Your task to perform on an android device: change keyboard looks Image 0: 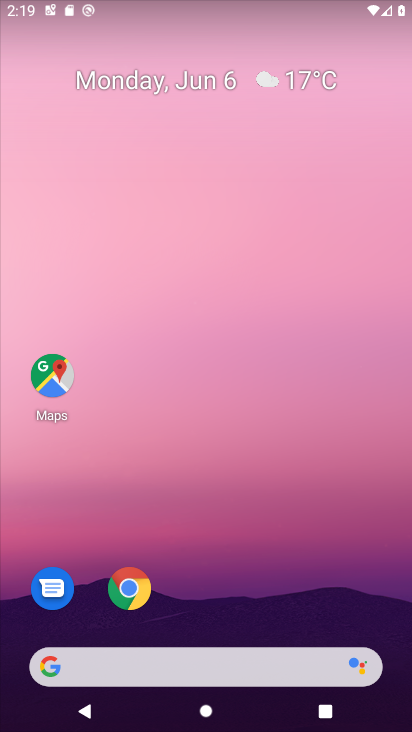
Step 0: drag from (134, 719) to (306, 94)
Your task to perform on an android device: change keyboard looks Image 1: 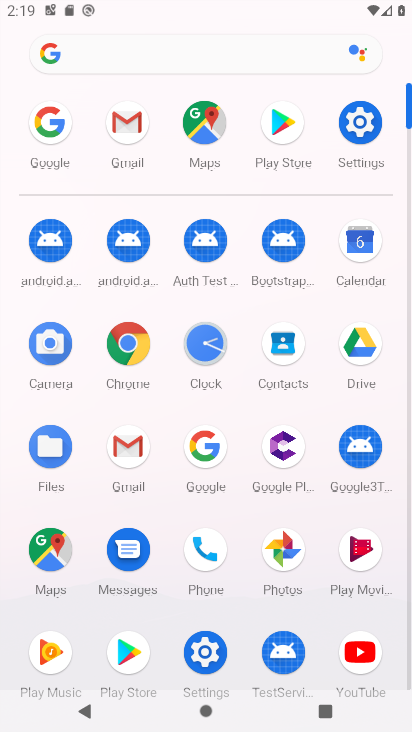
Step 1: click (359, 122)
Your task to perform on an android device: change keyboard looks Image 2: 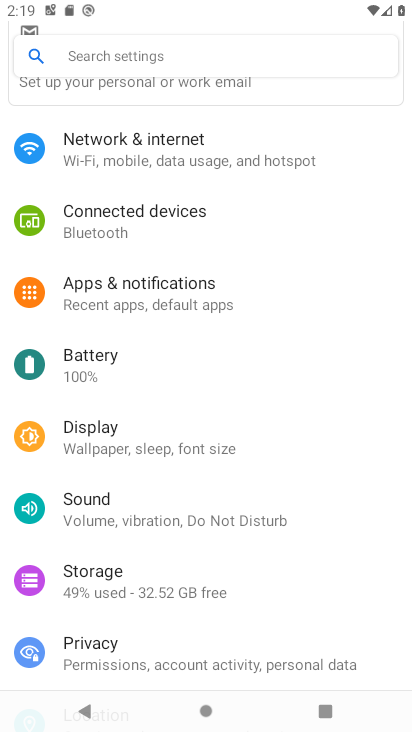
Step 2: drag from (243, 600) to (344, 32)
Your task to perform on an android device: change keyboard looks Image 3: 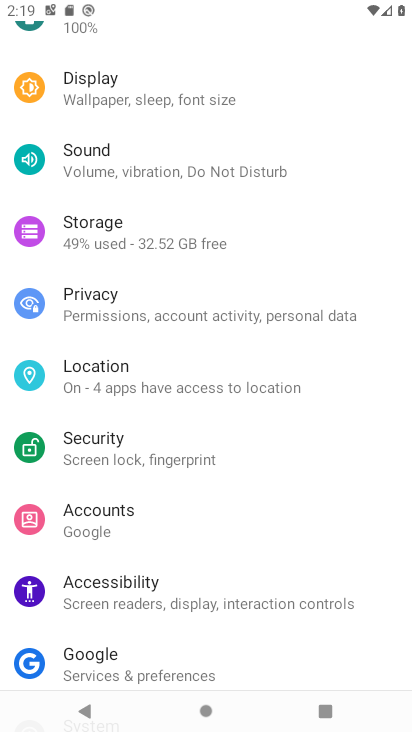
Step 3: drag from (268, 589) to (303, 173)
Your task to perform on an android device: change keyboard looks Image 4: 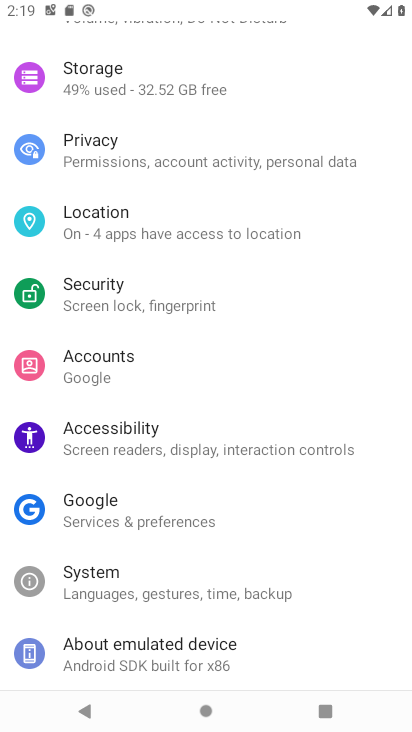
Step 4: click (190, 602)
Your task to perform on an android device: change keyboard looks Image 5: 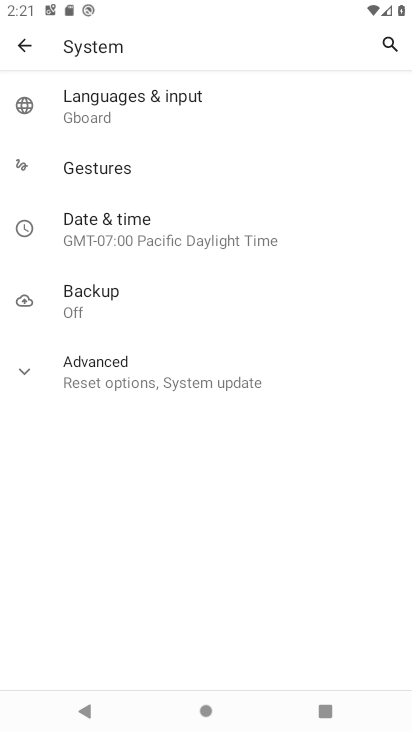
Step 5: click (164, 94)
Your task to perform on an android device: change keyboard looks Image 6: 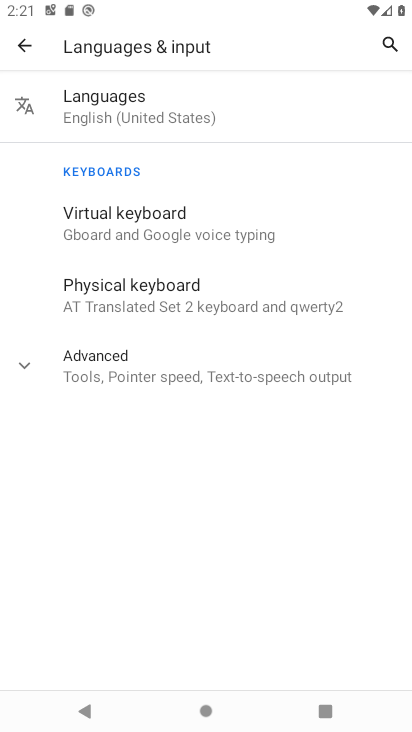
Step 6: click (179, 212)
Your task to perform on an android device: change keyboard looks Image 7: 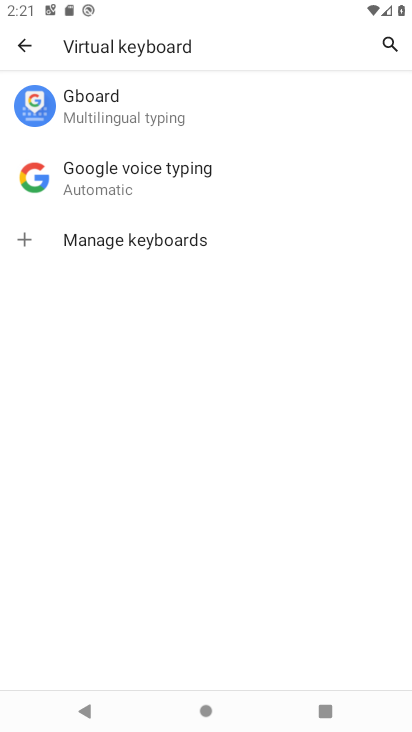
Step 7: click (160, 126)
Your task to perform on an android device: change keyboard looks Image 8: 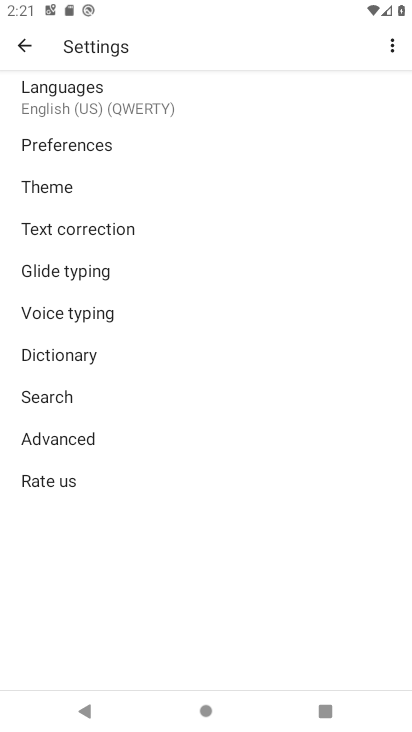
Step 8: click (65, 188)
Your task to perform on an android device: change keyboard looks Image 9: 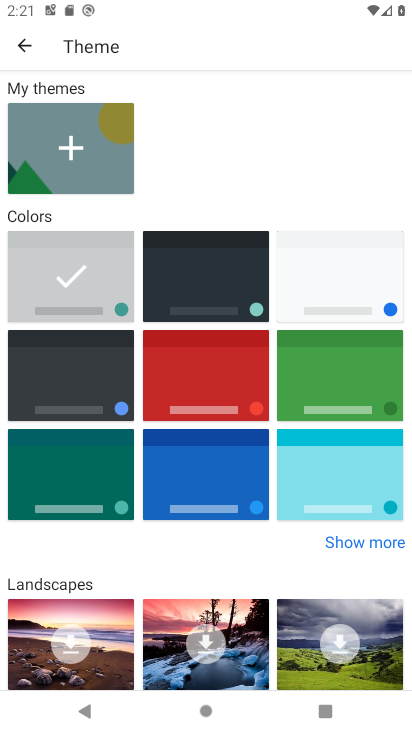
Step 9: click (198, 501)
Your task to perform on an android device: change keyboard looks Image 10: 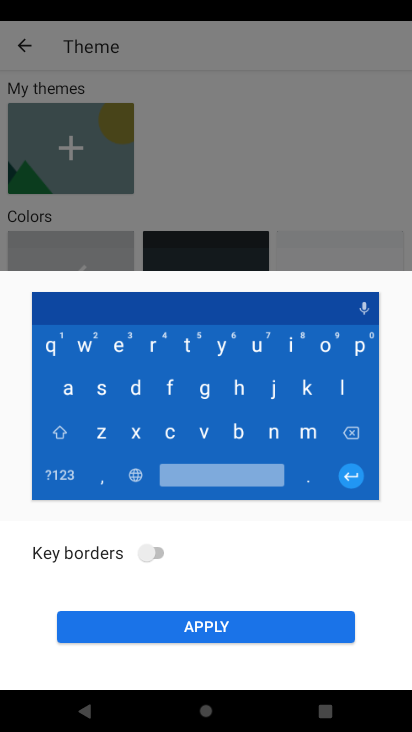
Step 10: click (256, 633)
Your task to perform on an android device: change keyboard looks Image 11: 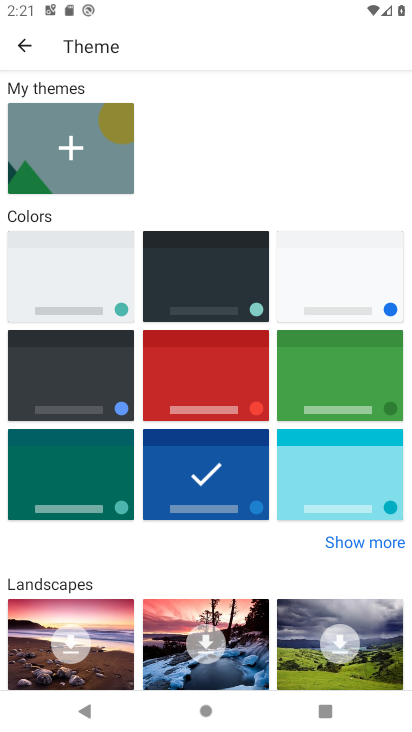
Step 11: task complete